Your task to perform on an android device: change the clock display to digital Image 0: 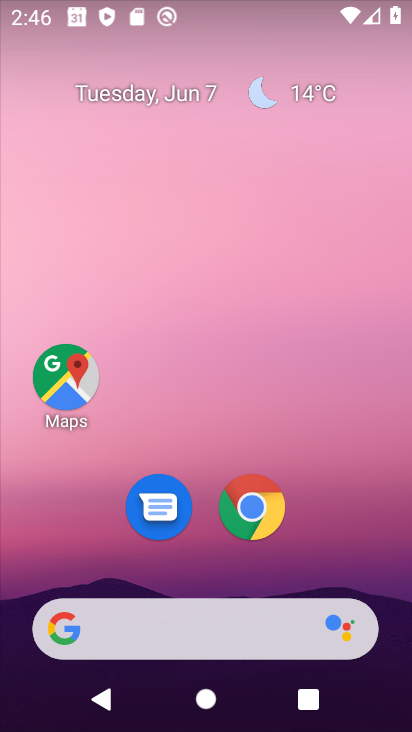
Step 0: drag from (331, 515) to (306, 70)
Your task to perform on an android device: change the clock display to digital Image 1: 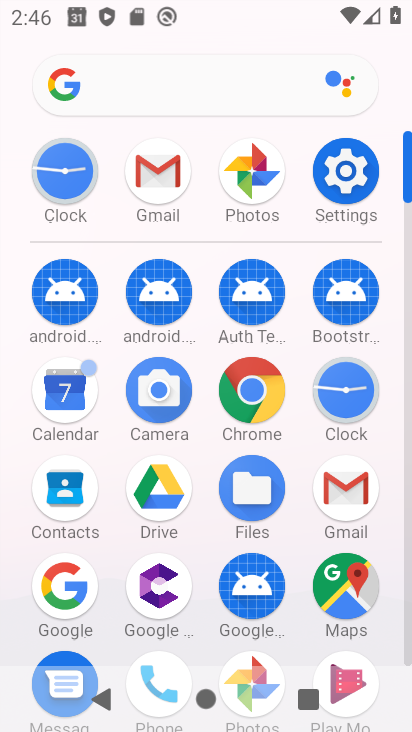
Step 1: click (345, 379)
Your task to perform on an android device: change the clock display to digital Image 2: 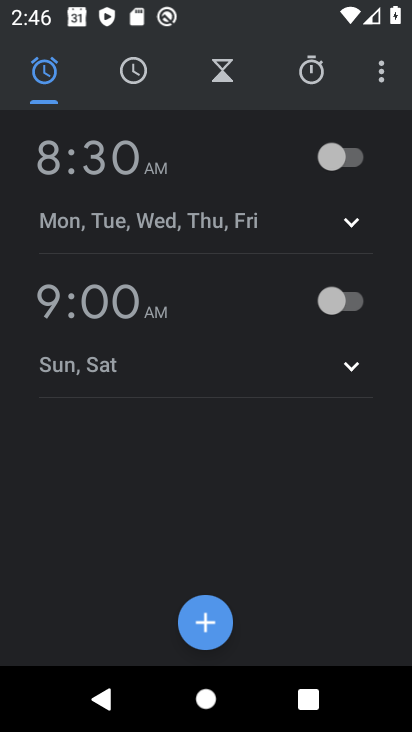
Step 2: click (393, 77)
Your task to perform on an android device: change the clock display to digital Image 3: 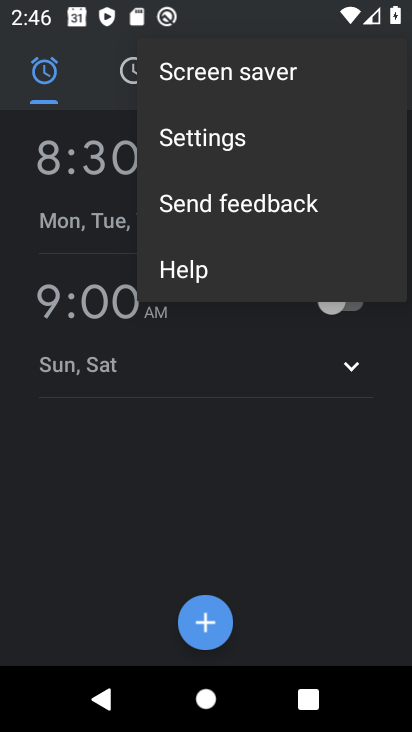
Step 3: click (225, 158)
Your task to perform on an android device: change the clock display to digital Image 4: 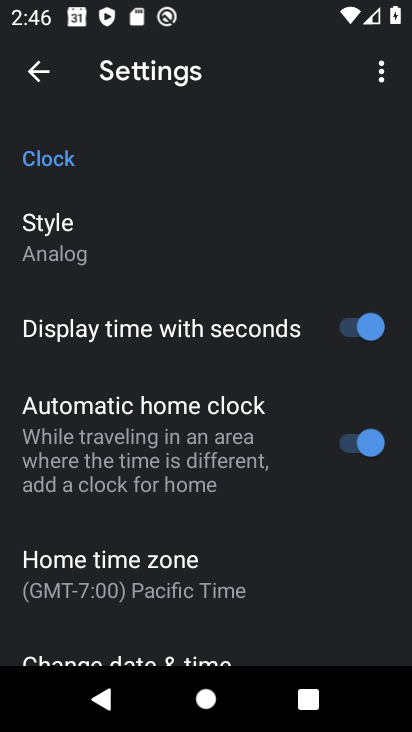
Step 4: click (77, 232)
Your task to perform on an android device: change the clock display to digital Image 5: 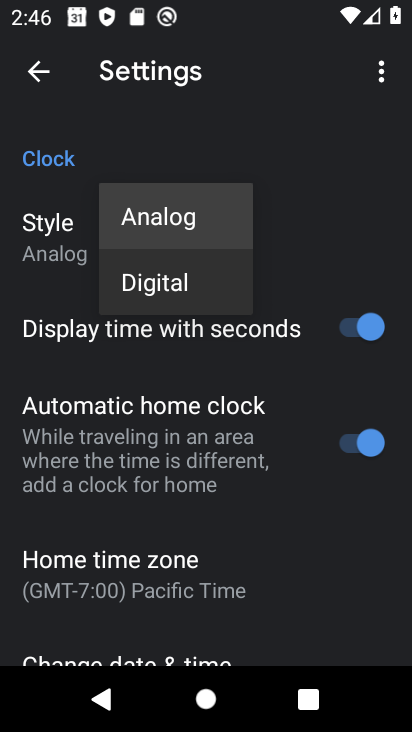
Step 5: click (159, 281)
Your task to perform on an android device: change the clock display to digital Image 6: 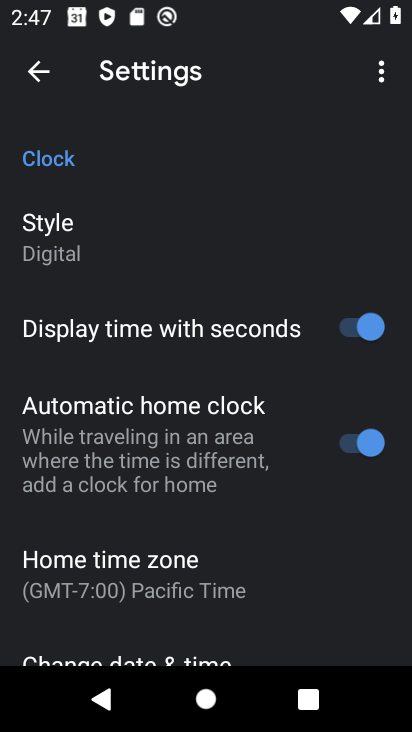
Step 6: task complete